Your task to perform on an android device: change the clock display to analog Image 0: 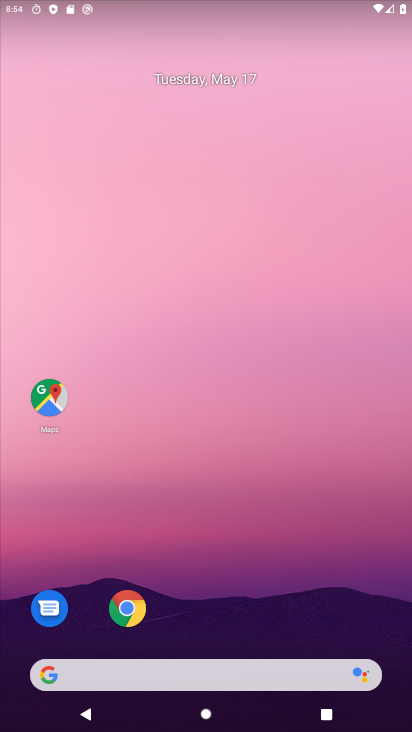
Step 0: drag from (258, 555) to (265, 186)
Your task to perform on an android device: change the clock display to analog Image 1: 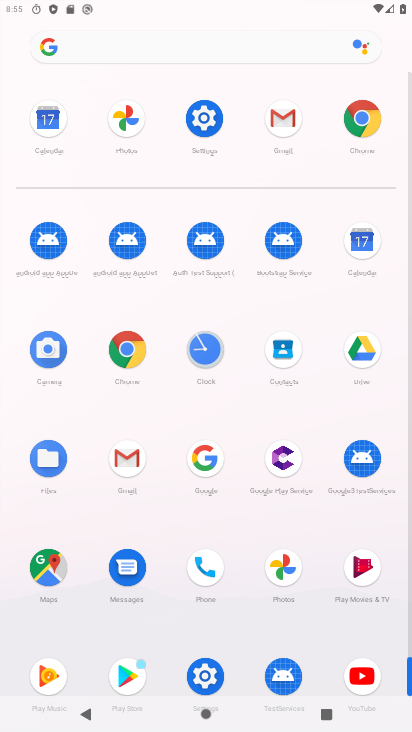
Step 1: click (198, 342)
Your task to perform on an android device: change the clock display to analog Image 2: 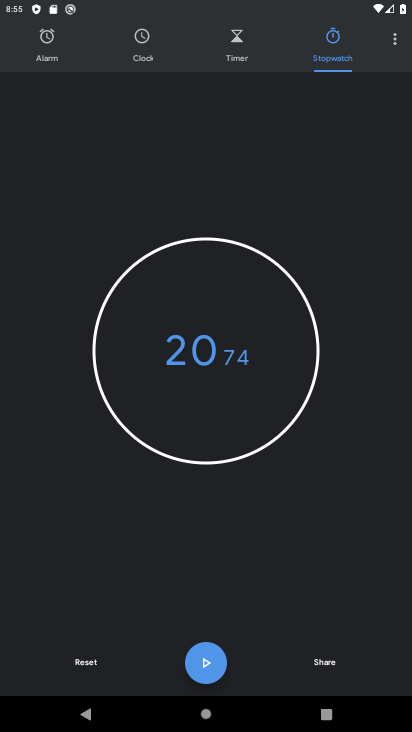
Step 2: click (395, 49)
Your task to perform on an android device: change the clock display to analog Image 3: 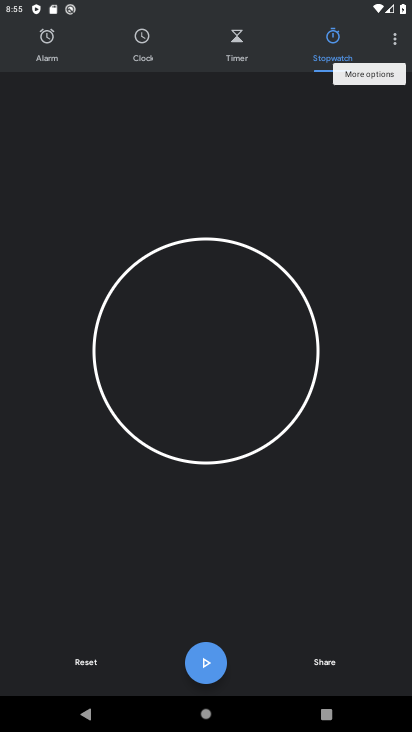
Step 3: click (395, 49)
Your task to perform on an android device: change the clock display to analog Image 4: 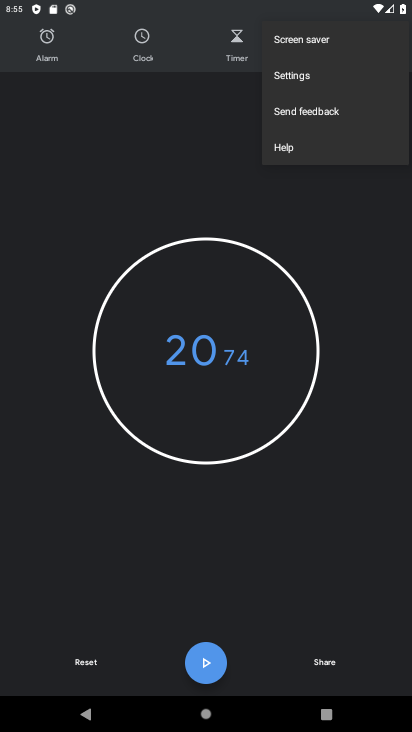
Step 4: click (299, 79)
Your task to perform on an android device: change the clock display to analog Image 5: 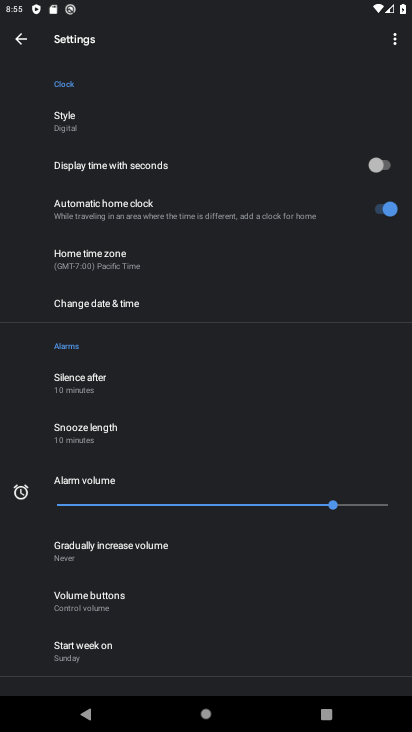
Step 5: click (275, 119)
Your task to perform on an android device: change the clock display to analog Image 6: 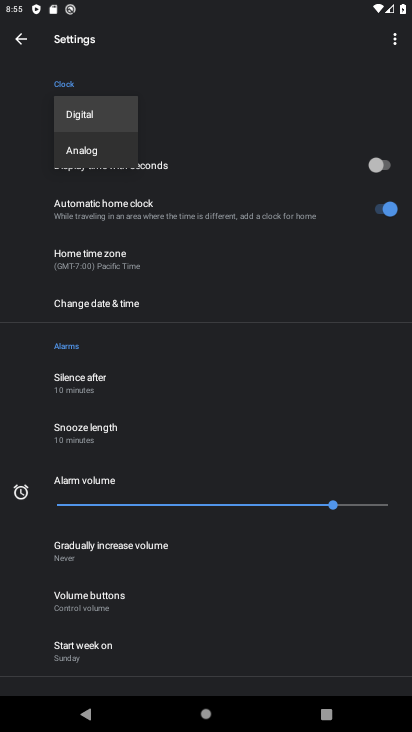
Step 6: click (101, 142)
Your task to perform on an android device: change the clock display to analog Image 7: 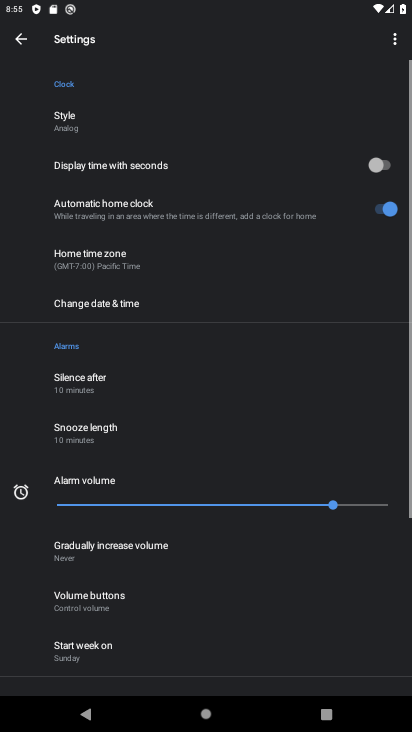
Step 7: task complete